Your task to perform on an android device: Do I have any events today? Image 0: 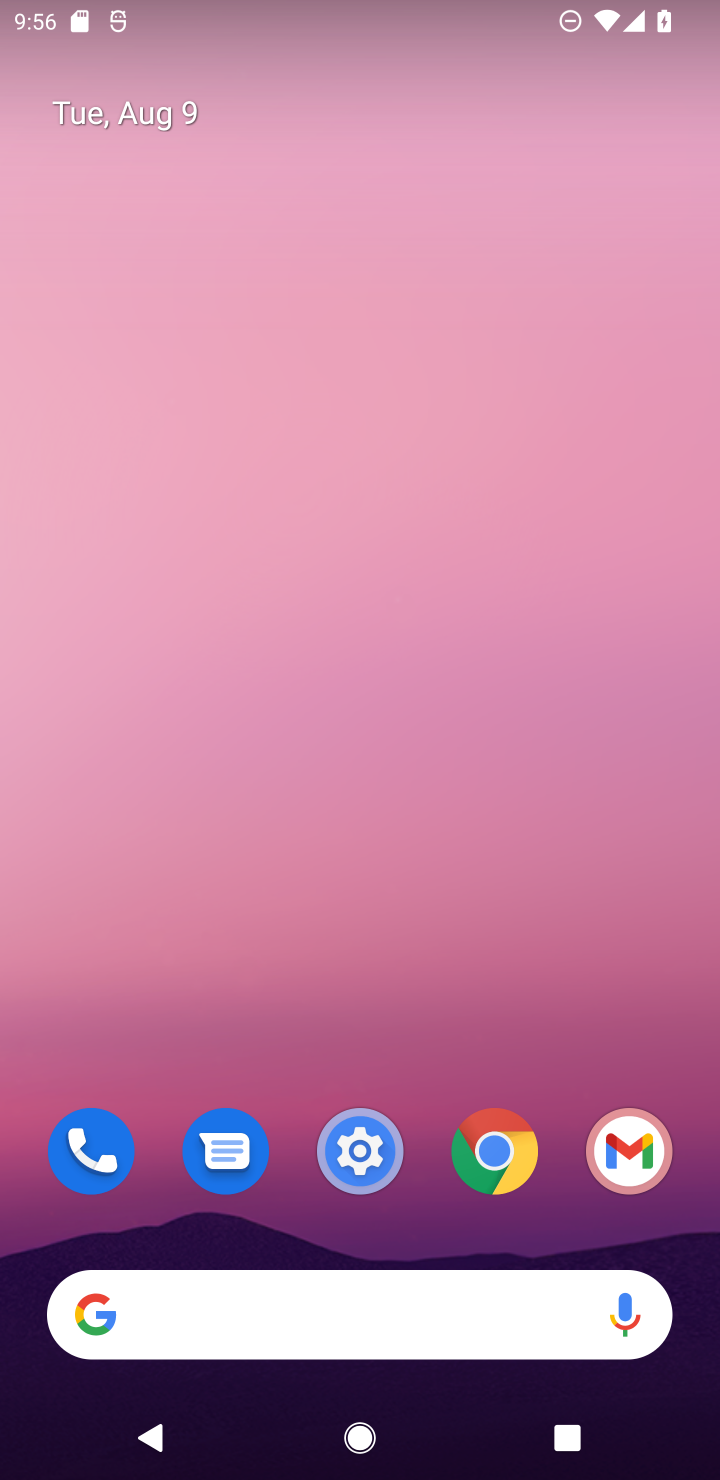
Step 0: click (130, 112)
Your task to perform on an android device: Do I have any events today? Image 1: 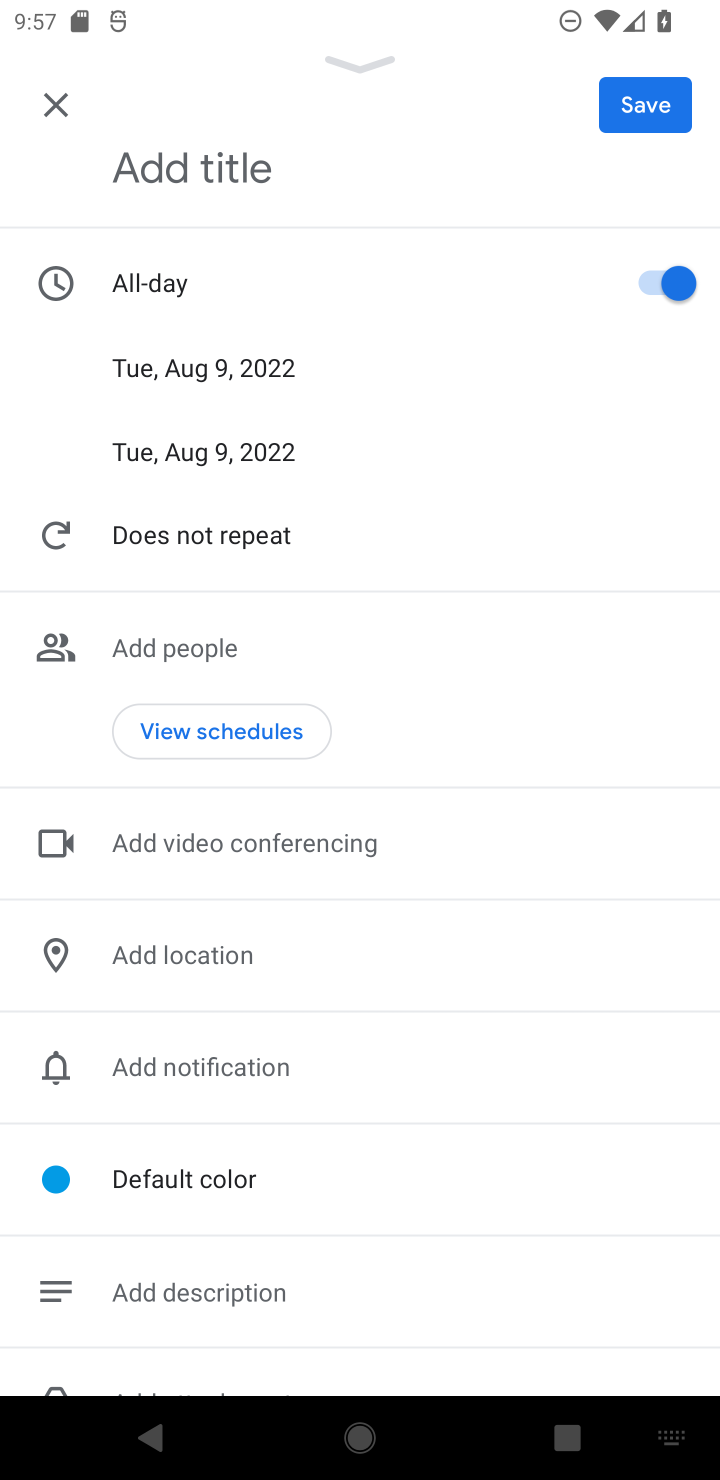
Step 1: click (45, 92)
Your task to perform on an android device: Do I have any events today? Image 2: 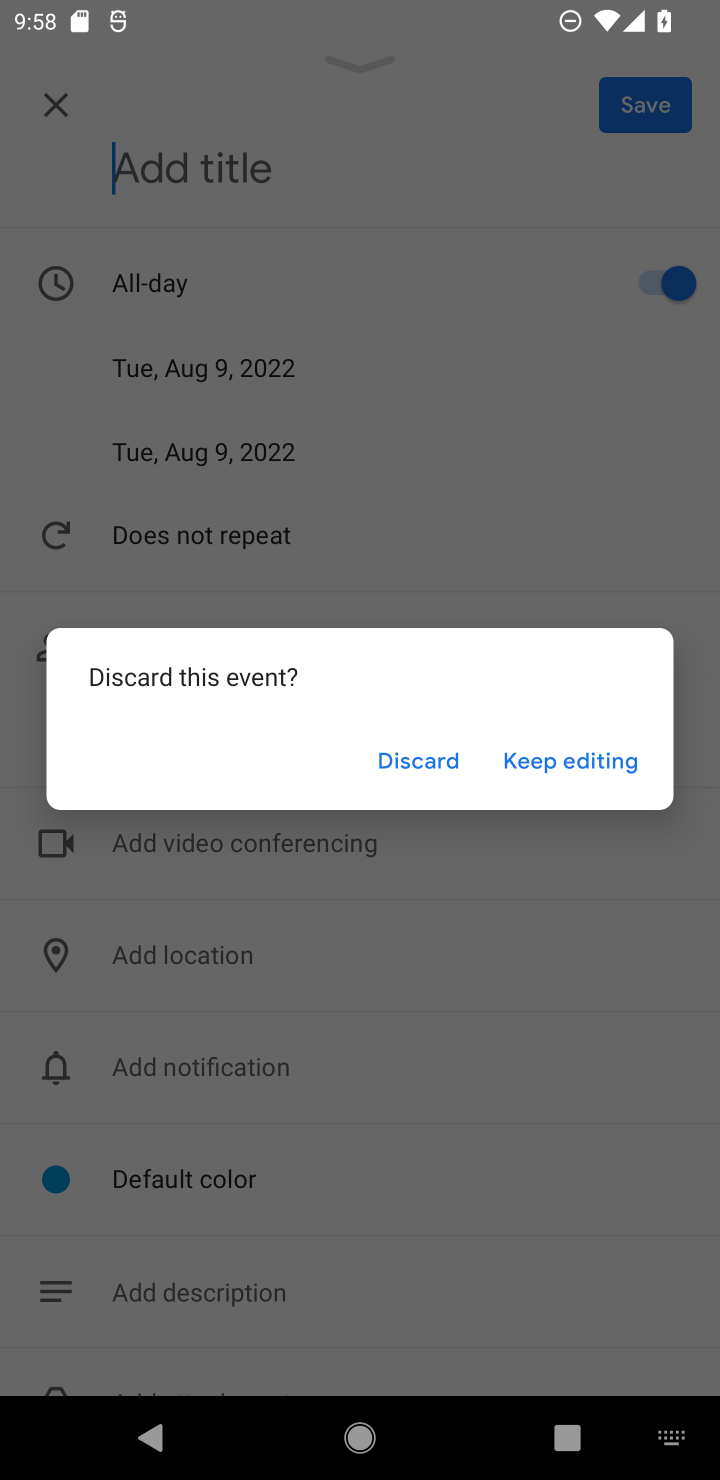
Step 2: click (449, 759)
Your task to perform on an android device: Do I have any events today? Image 3: 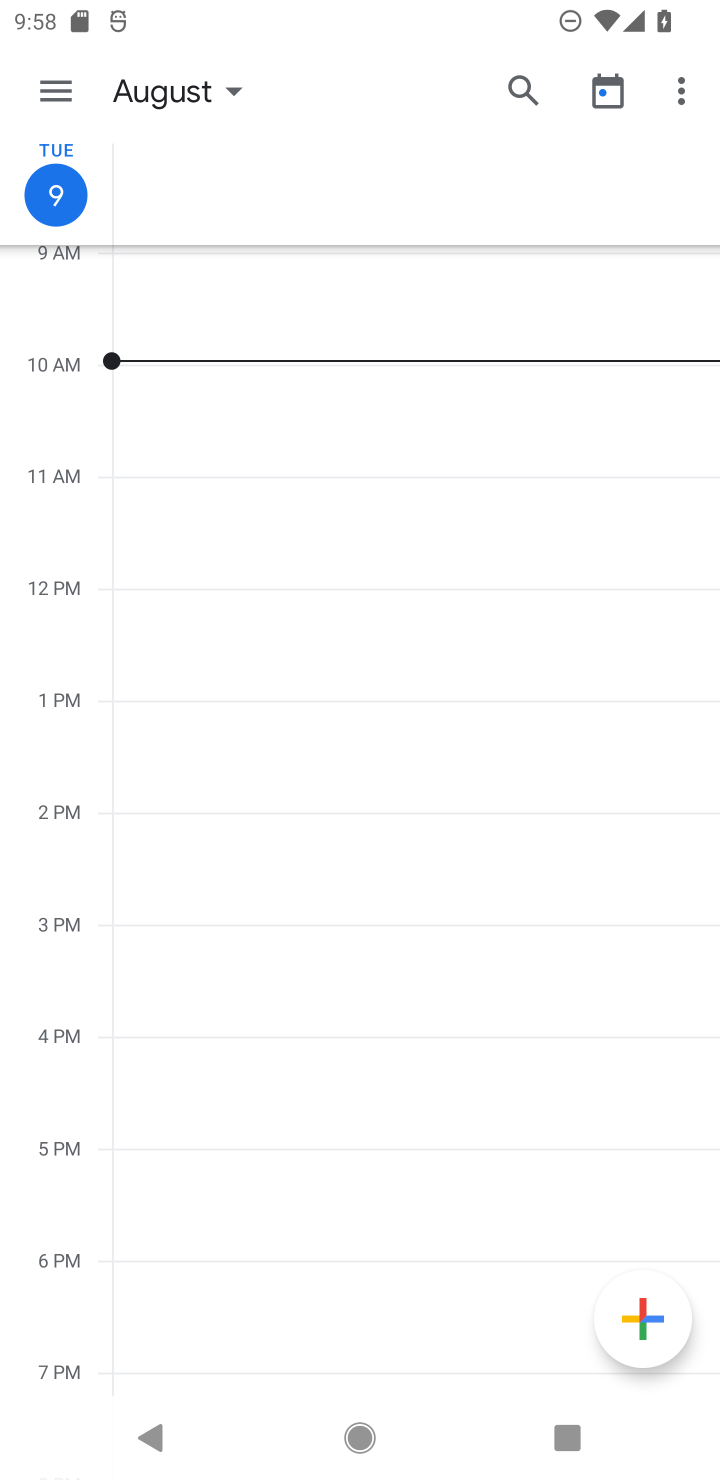
Step 3: task complete